Your task to perform on an android device: delete location history Image 0: 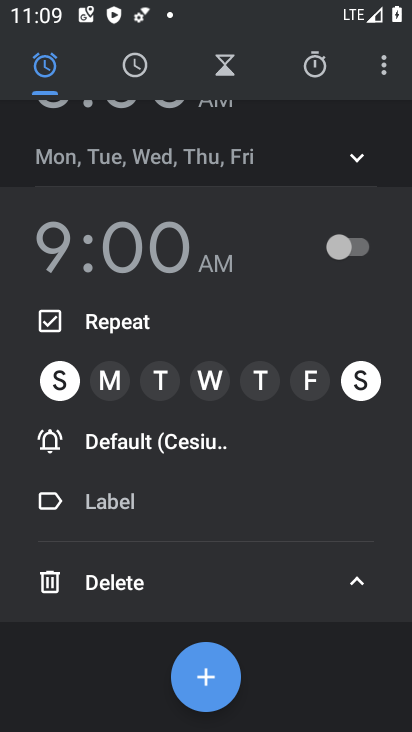
Step 0: press back button
Your task to perform on an android device: delete location history Image 1: 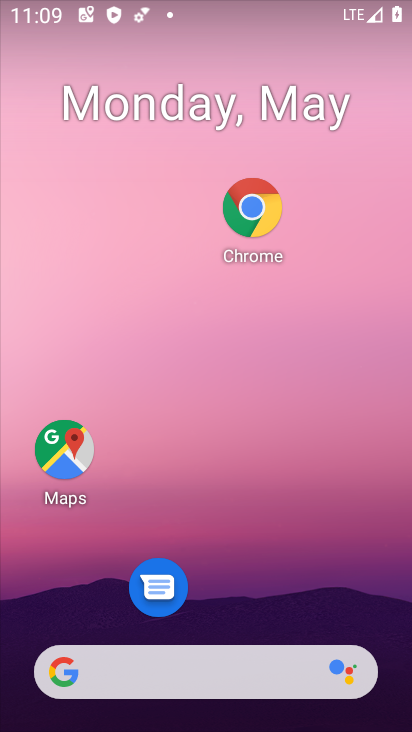
Step 1: drag from (324, 633) to (177, 34)
Your task to perform on an android device: delete location history Image 2: 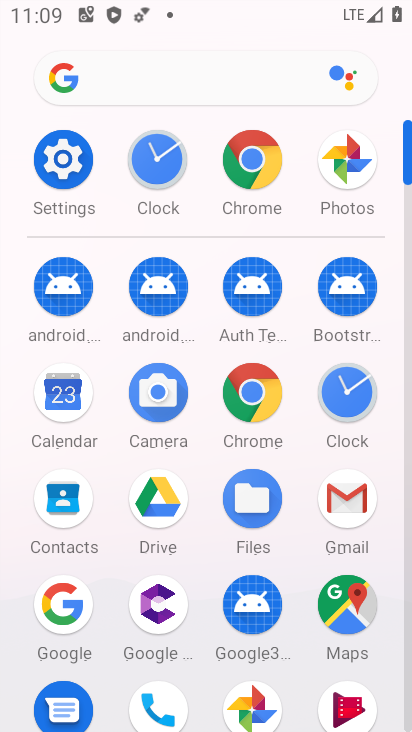
Step 2: click (330, 592)
Your task to perform on an android device: delete location history Image 3: 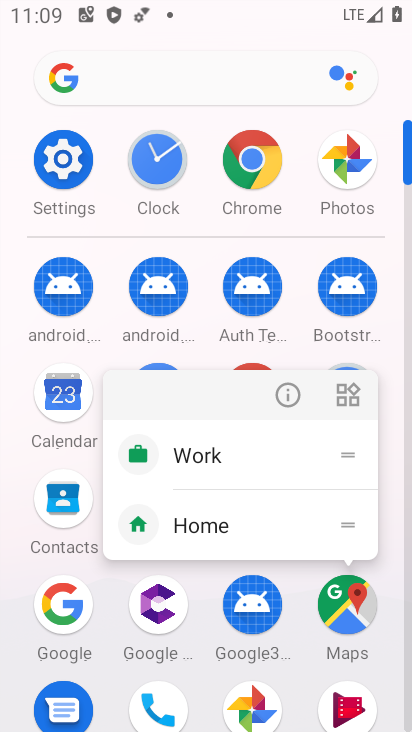
Step 3: click (345, 604)
Your task to perform on an android device: delete location history Image 4: 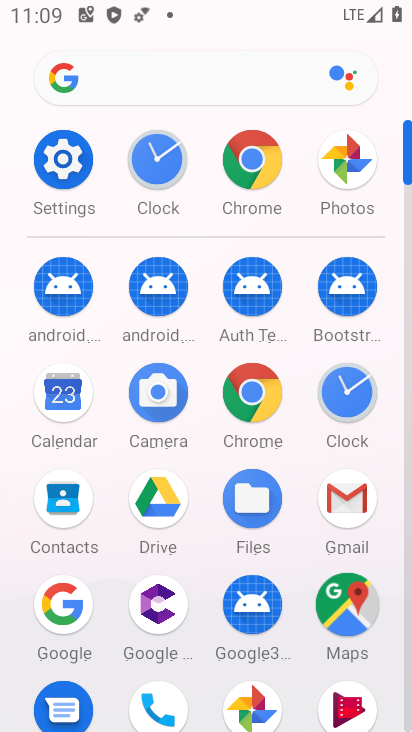
Step 4: click (345, 603)
Your task to perform on an android device: delete location history Image 5: 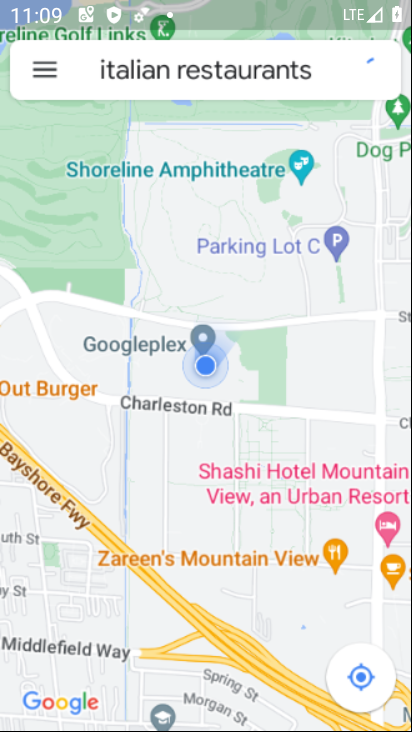
Step 5: click (345, 603)
Your task to perform on an android device: delete location history Image 6: 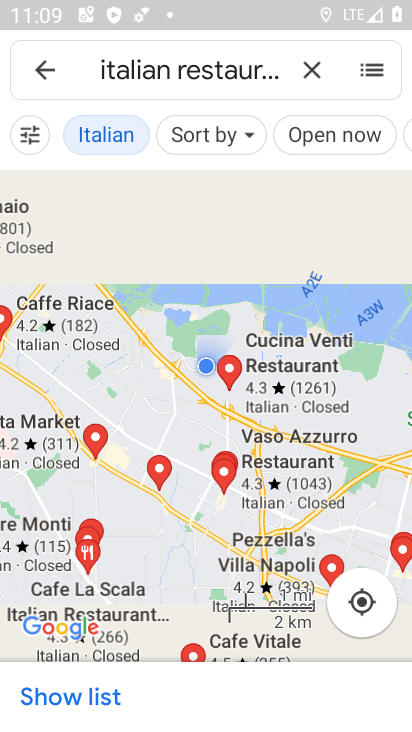
Step 6: click (40, 66)
Your task to perform on an android device: delete location history Image 7: 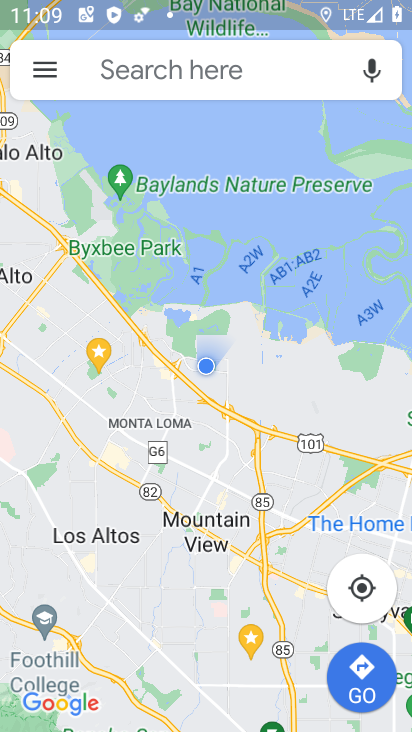
Step 7: click (40, 78)
Your task to perform on an android device: delete location history Image 8: 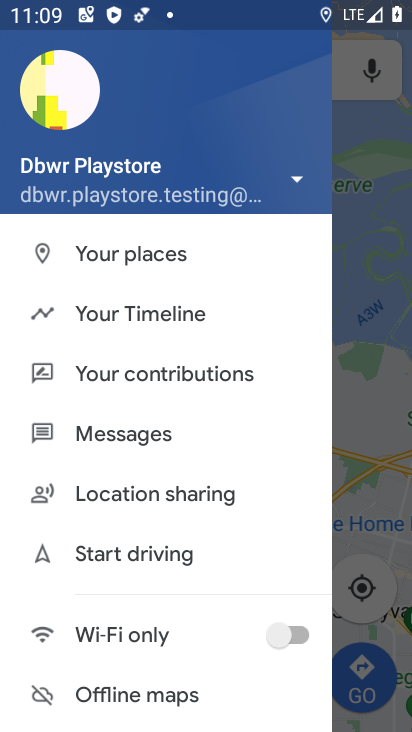
Step 8: click (180, 311)
Your task to perform on an android device: delete location history Image 9: 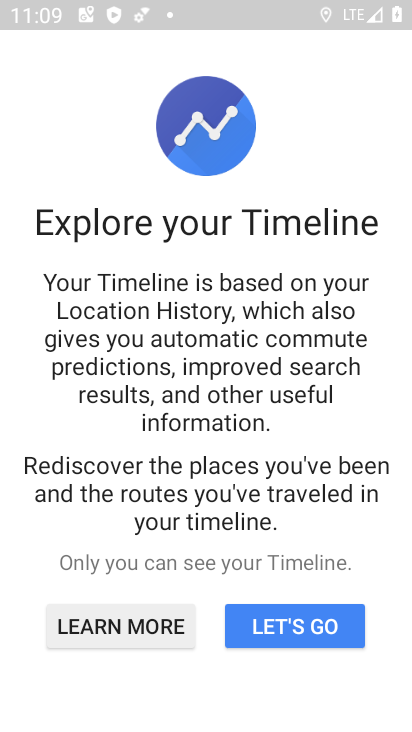
Step 9: click (289, 636)
Your task to perform on an android device: delete location history Image 10: 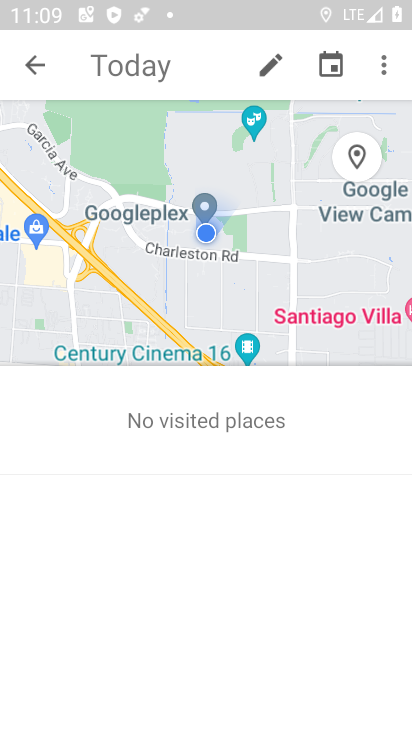
Step 10: drag from (386, 69) to (235, 430)
Your task to perform on an android device: delete location history Image 11: 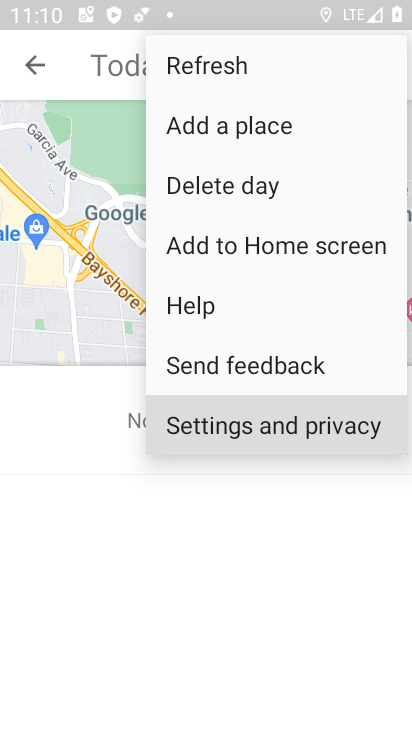
Step 11: click (235, 430)
Your task to perform on an android device: delete location history Image 12: 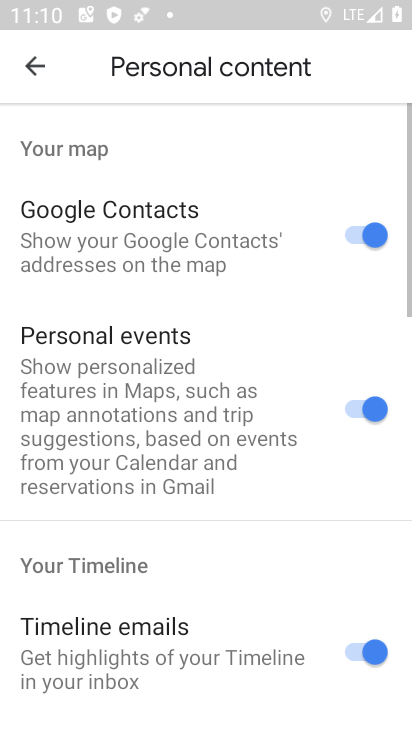
Step 12: drag from (196, 555) to (216, 96)
Your task to perform on an android device: delete location history Image 13: 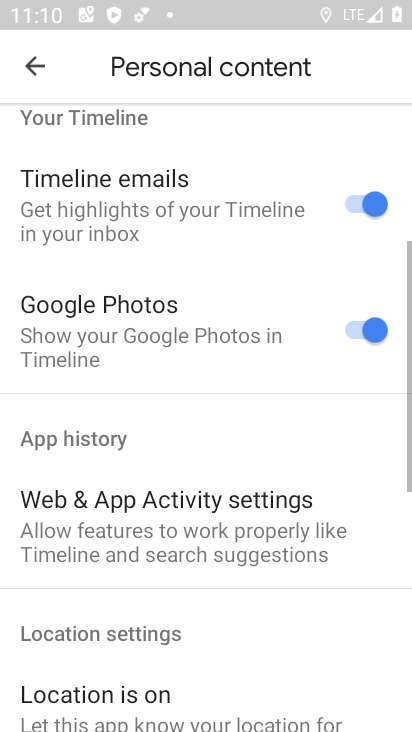
Step 13: drag from (228, 423) to (205, 90)
Your task to perform on an android device: delete location history Image 14: 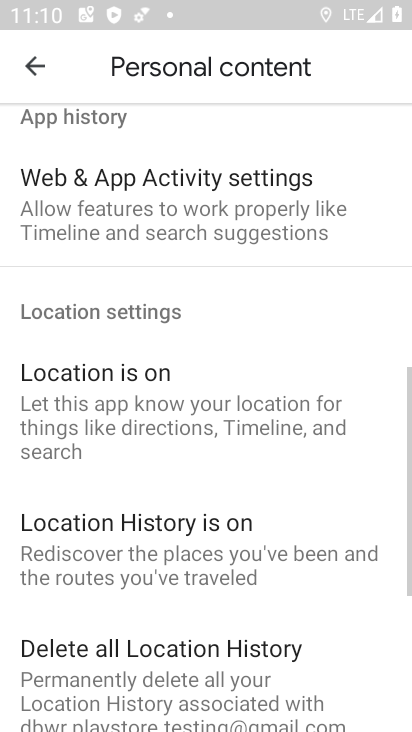
Step 14: drag from (195, 434) to (194, 103)
Your task to perform on an android device: delete location history Image 15: 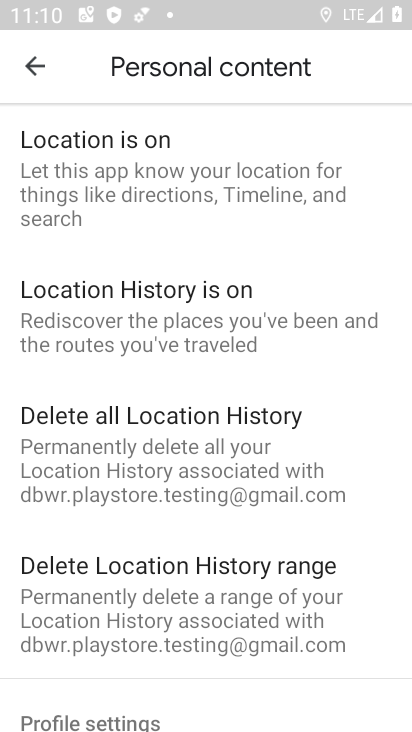
Step 15: click (153, 424)
Your task to perform on an android device: delete location history Image 16: 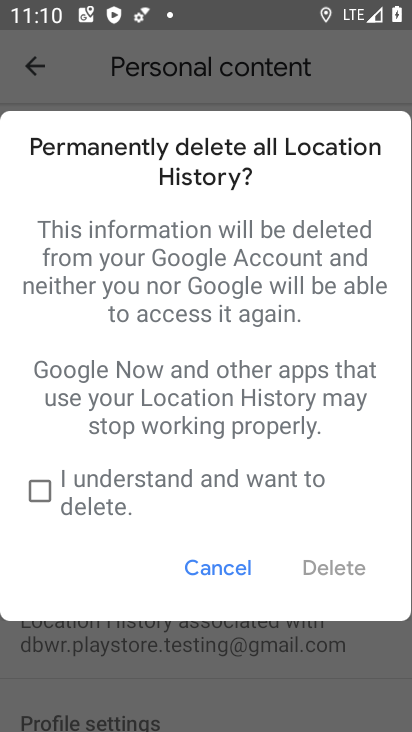
Step 16: click (38, 483)
Your task to perform on an android device: delete location history Image 17: 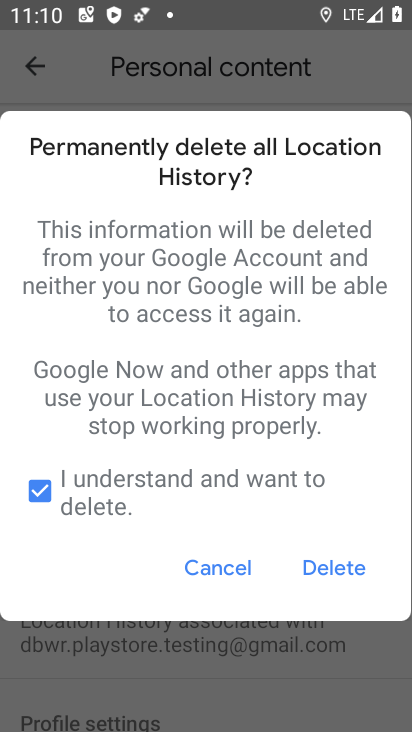
Step 17: click (344, 568)
Your task to perform on an android device: delete location history Image 18: 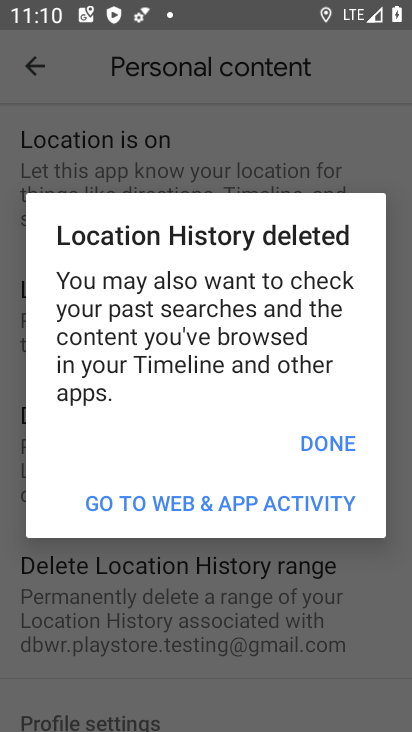
Step 18: click (305, 423)
Your task to perform on an android device: delete location history Image 19: 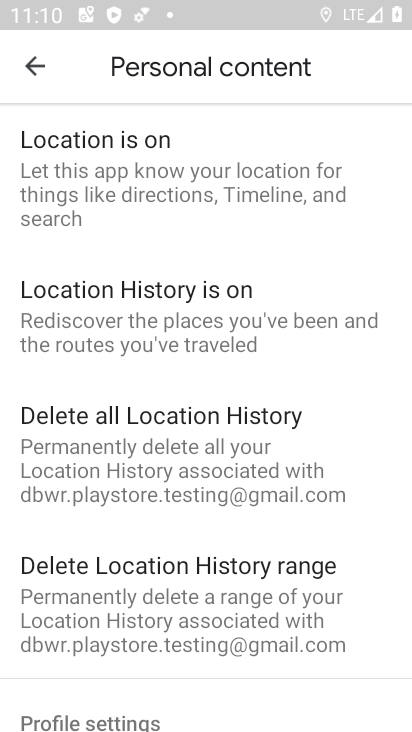
Step 19: task complete